Your task to perform on an android device: Open CNN.com Image 0: 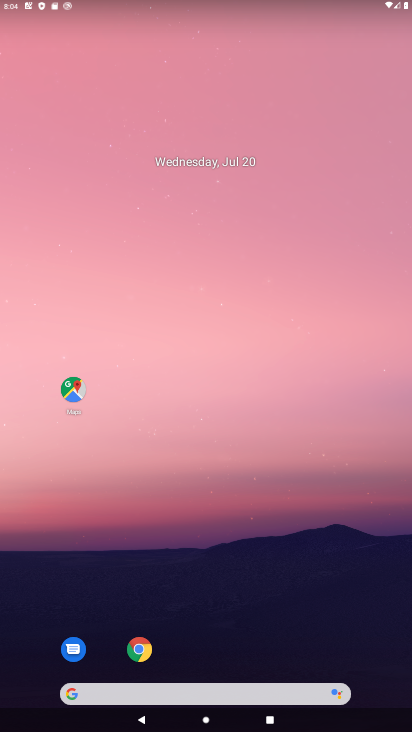
Step 0: click (140, 650)
Your task to perform on an android device: Open CNN.com Image 1: 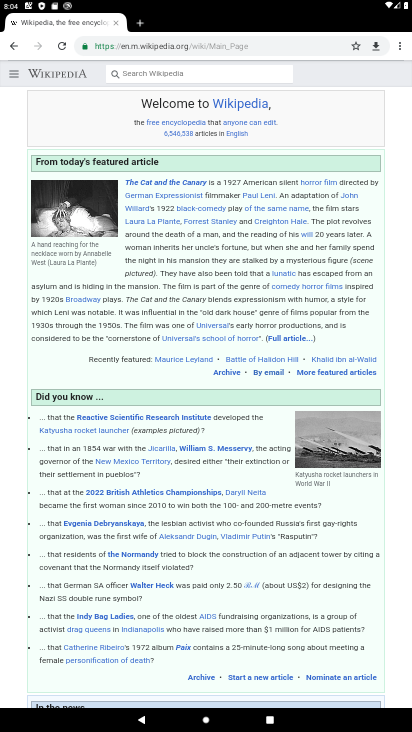
Step 1: click (267, 49)
Your task to perform on an android device: Open CNN.com Image 2: 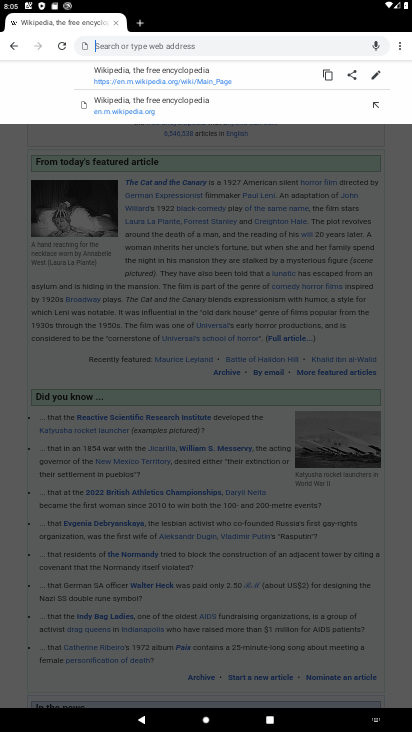
Step 2: type "CNN.com"
Your task to perform on an android device: Open CNN.com Image 3: 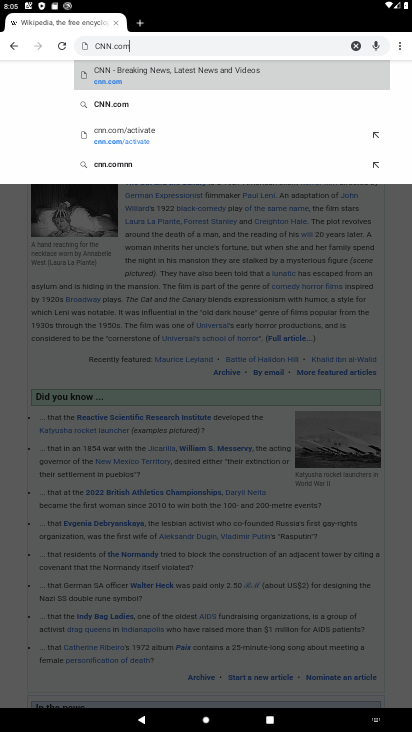
Step 3: click (118, 106)
Your task to perform on an android device: Open CNN.com Image 4: 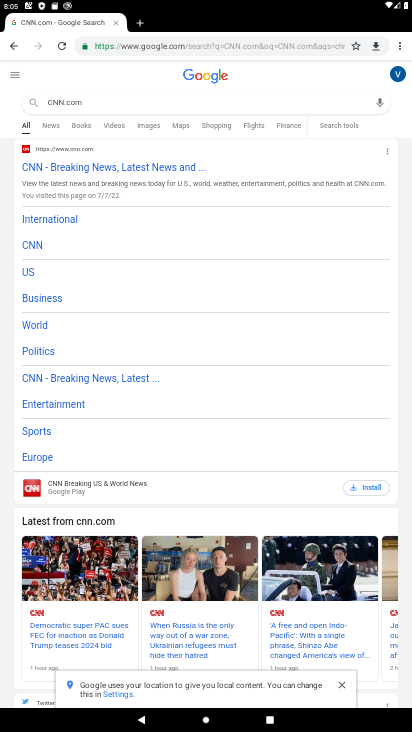
Step 4: click (106, 166)
Your task to perform on an android device: Open CNN.com Image 5: 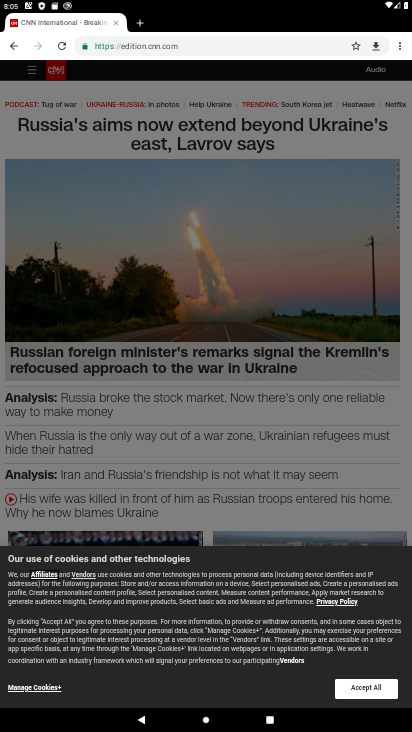
Step 5: click (358, 689)
Your task to perform on an android device: Open CNN.com Image 6: 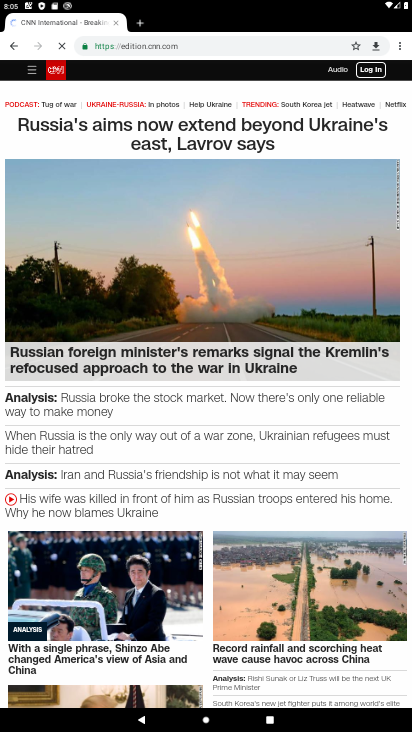
Step 6: task complete